Your task to perform on an android device: change timer sound Image 0: 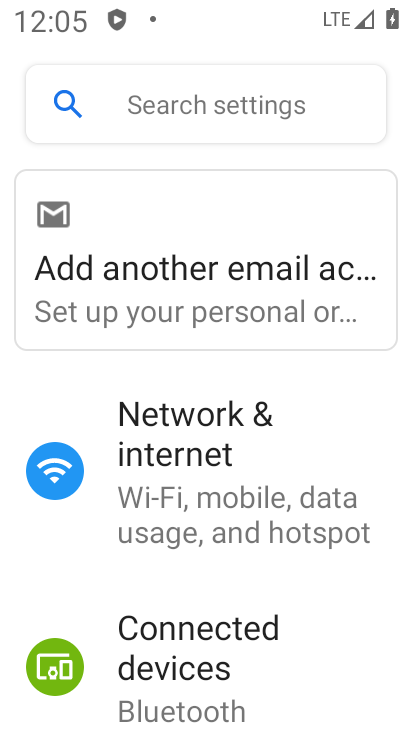
Step 0: press home button
Your task to perform on an android device: change timer sound Image 1: 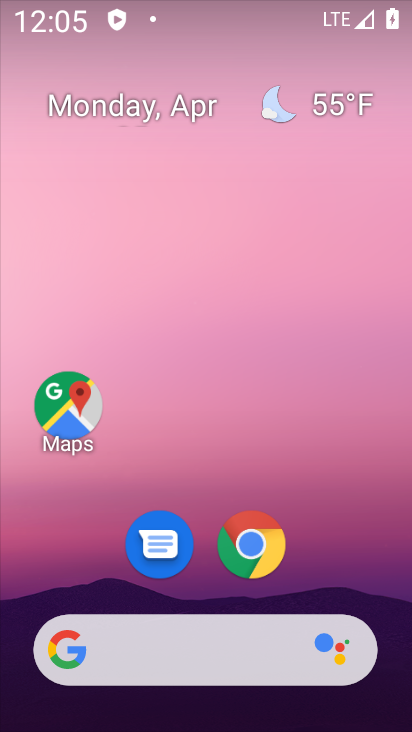
Step 1: drag from (250, 452) to (94, 91)
Your task to perform on an android device: change timer sound Image 2: 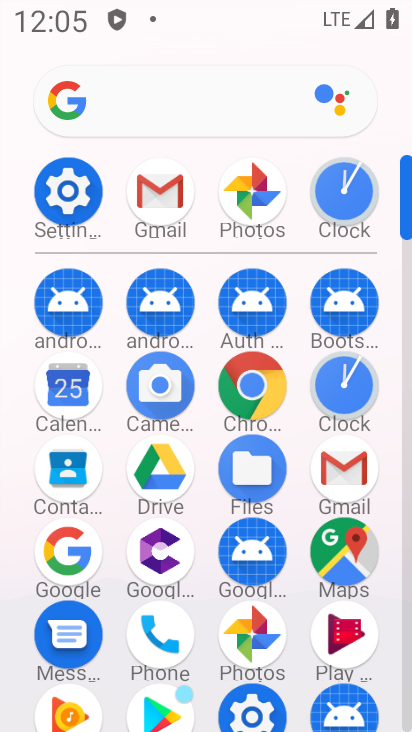
Step 2: click (352, 201)
Your task to perform on an android device: change timer sound Image 3: 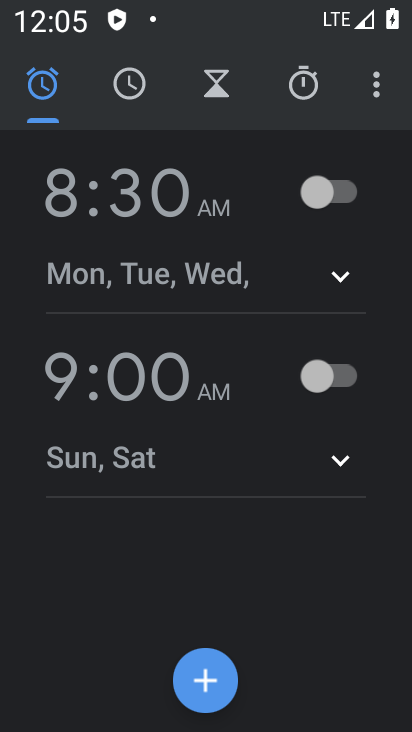
Step 3: click (381, 85)
Your task to perform on an android device: change timer sound Image 4: 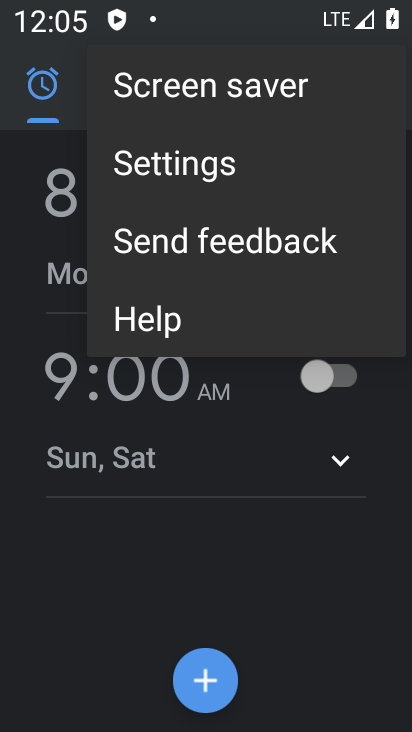
Step 4: click (175, 164)
Your task to perform on an android device: change timer sound Image 5: 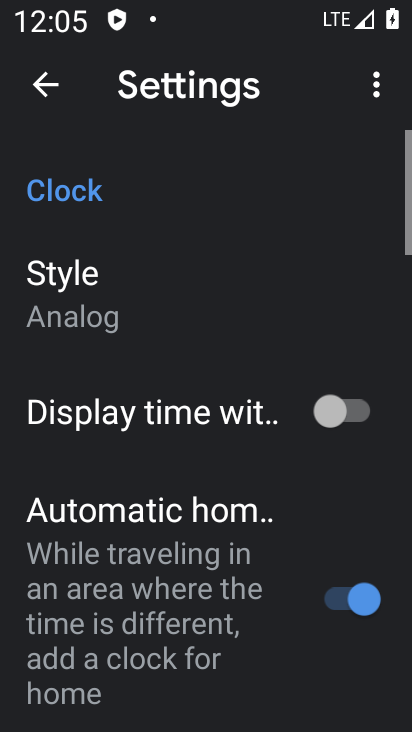
Step 5: drag from (154, 647) to (149, 126)
Your task to perform on an android device: change timer sound Image 6: 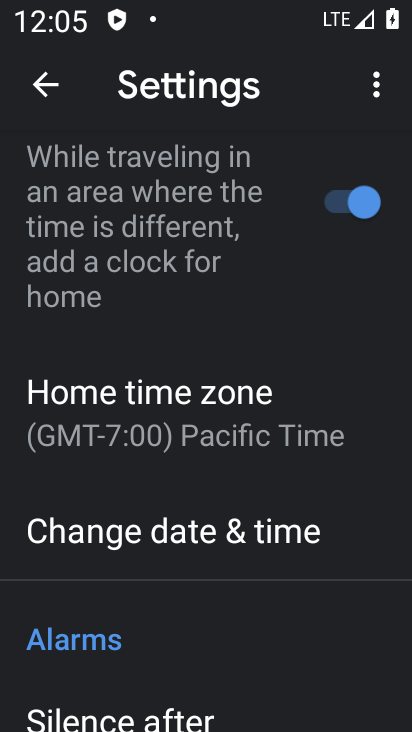
Step 6: drag from (142, 635) to (132, 135)
Your task to perform on an android device: change timer sound Image 7: 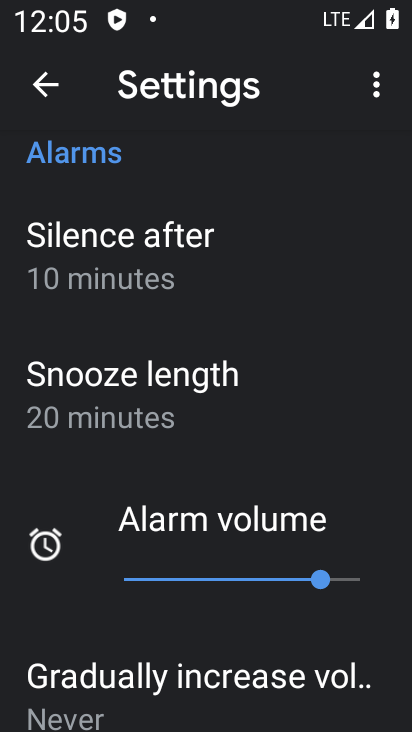
Step 7: drag from (145, 675) to (138, 174)
Your task to perform on an android device: change timer sound Image 8: 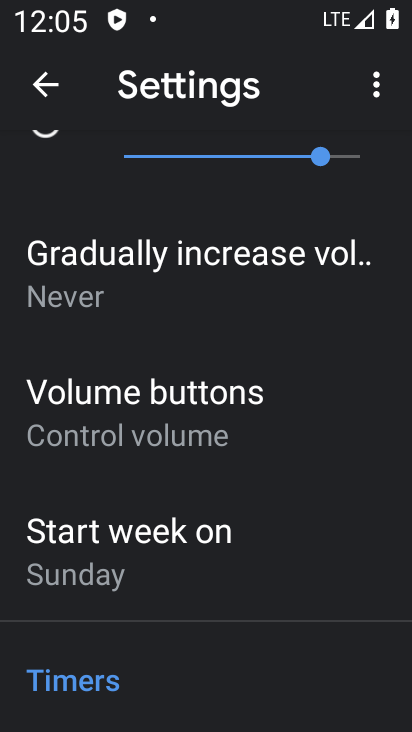
Step 8: drag from (147, 664) to (137, 287)
Your task to perform on an android device: change timer sound Image 9: 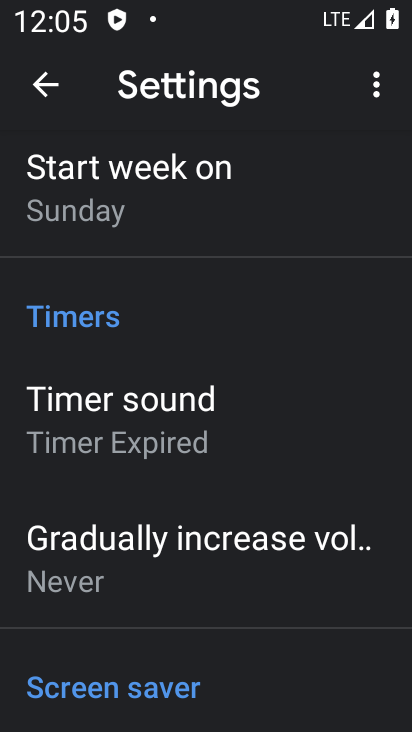
Step 9: click (112, 428)
Your task to perform on an android device: change timer sound Image 10: 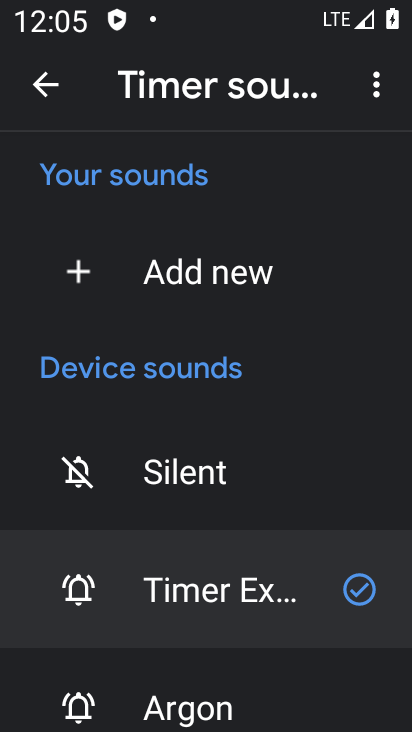
Step 10: drag from (177, 678) to (177, 229)
Your task to perform on an android device: change timer sound Image 11: 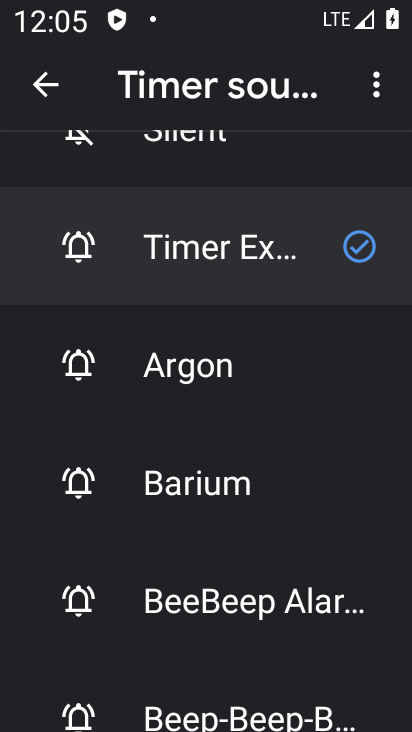
Step 11: click (198, 606)
Your task to perform on an android device: change timer sound Image 12: 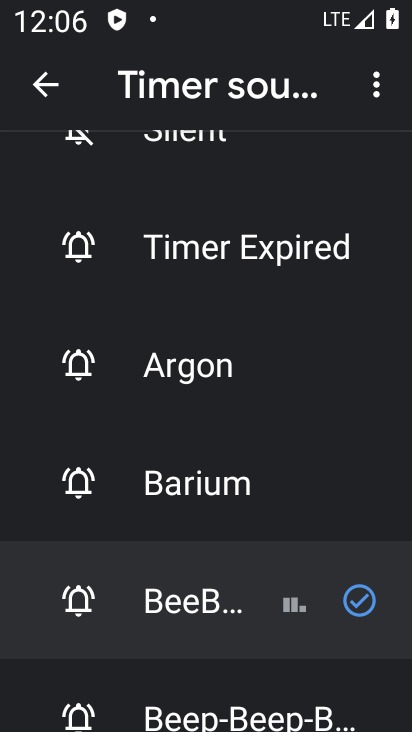
Step 12: task complete